Your task to perform on an android device: empty trash in the gmail app Image 0: 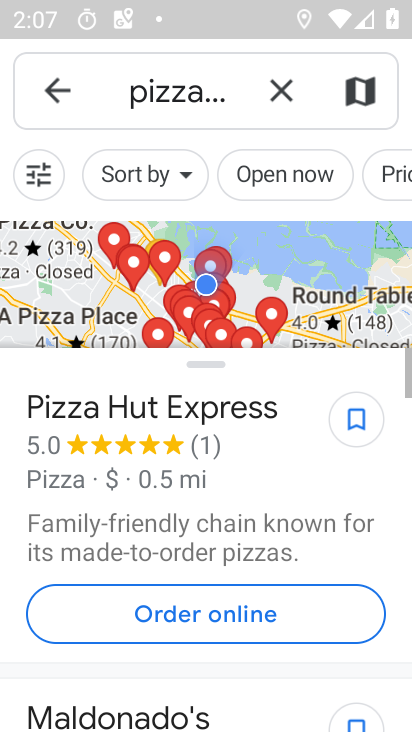
Step 0: press home button
Your task to perform on an android device: empty trash in the gmail app Image 1: 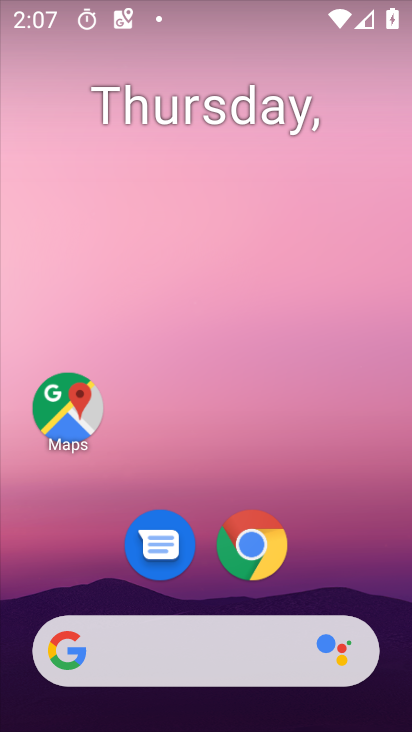
Step 1: drag from (234, 720) to (251, 134)
Your task to perform on an android device: empty trash in the gmail app Image 2: 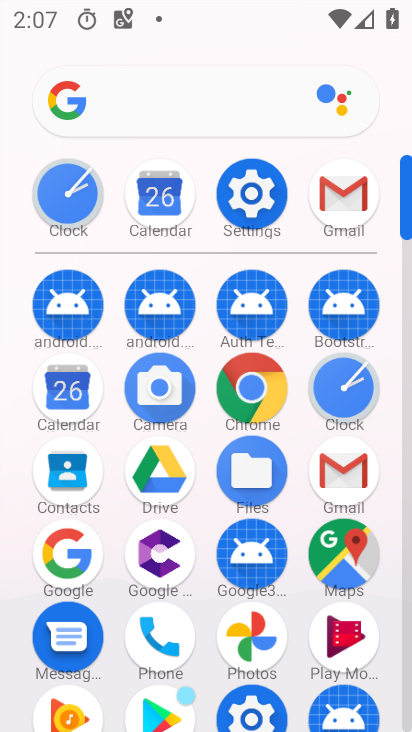
Step 2: click (345, 474)
Your task to perform on an android device: empty trash in the gmail app Image 3: 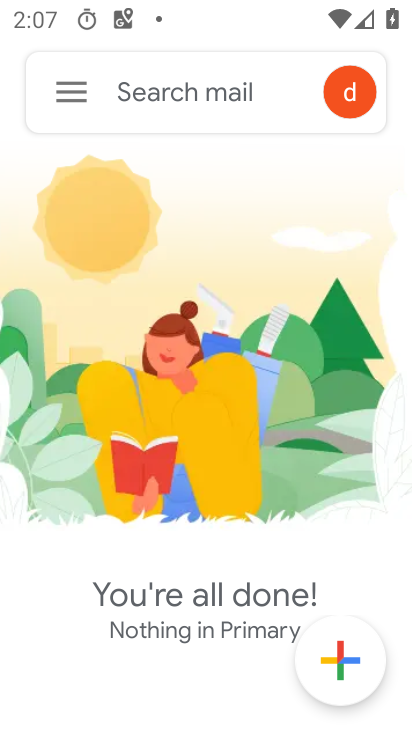
Step 3: click (76, 96)
Your task to perform on an android device: empty trash in the gmail app Image 4: 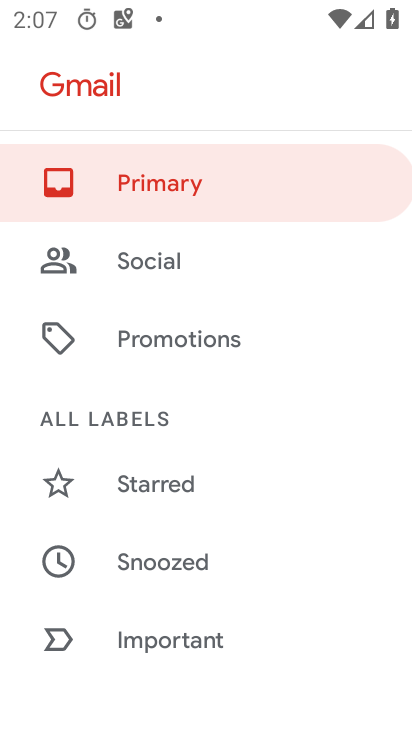
Step 4: drag from (177, 625) to (199, 178)
Your task to perform on an android device: empty trash in the gmail app Image 5: 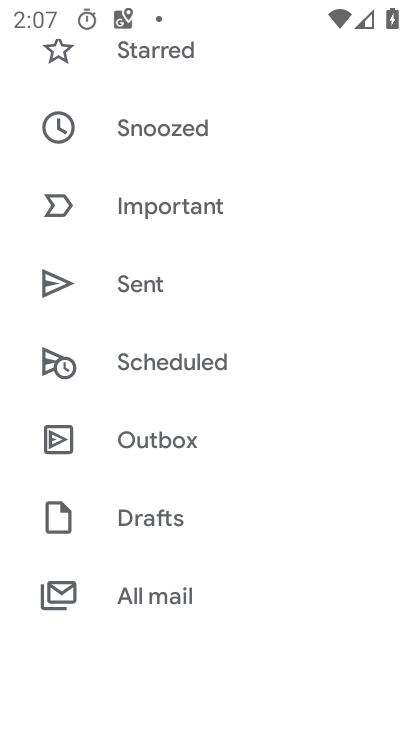
Step 5: drag from (177, 586) to (190, 235)
Your task to perform on an android device: empty trash in the gmail app Image 6: 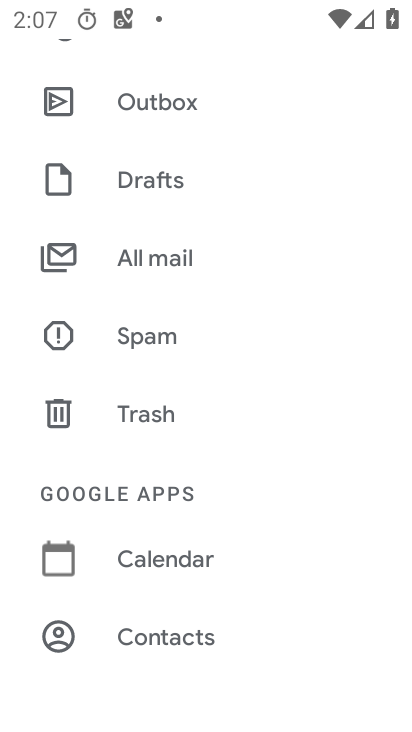
Step 6: click (152, 411)
Your task to perform on an android device: empty trash in the gmail app Image 7: 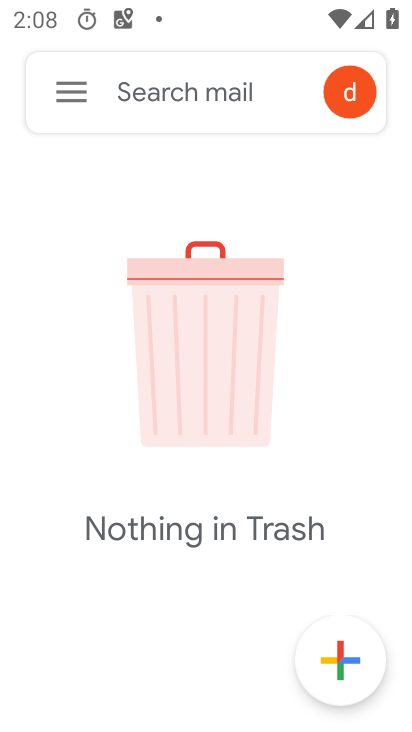
Step 7: task complete